Your task to perform on an android device: change the upload size in google photos Image 0: 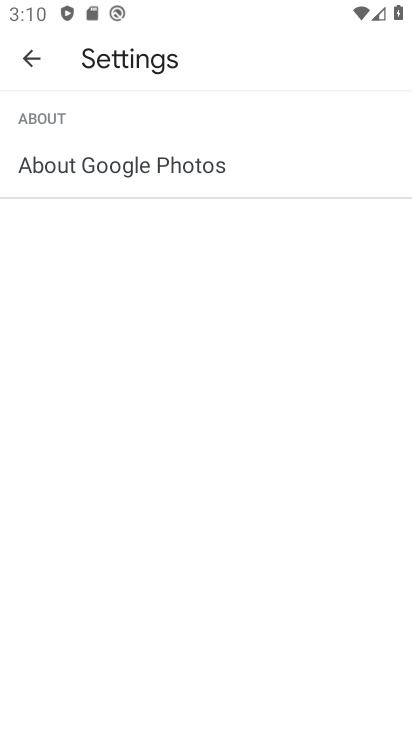
Step 0: press home button
Your task to perform on an android device: change the upload size in google photos Image 1: 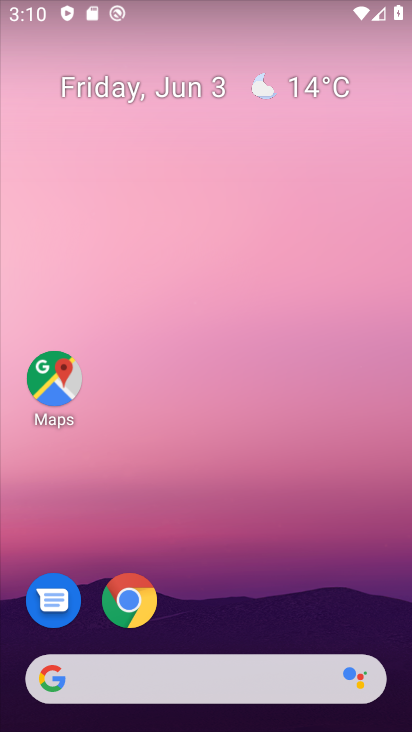
Step 1: drag from (223, 566) to (205, 169)
Your task to perform on an android device: change the upload size in google photos Image 2: 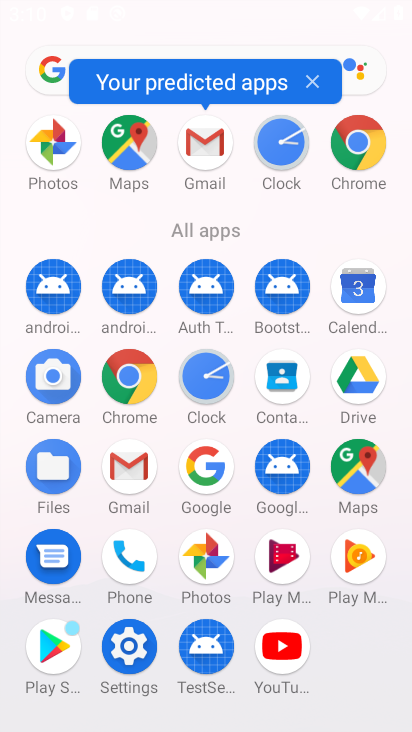
Step 2: click (68, 143)
Your task to perform on an android device: change the upload size in google photos Image 3: 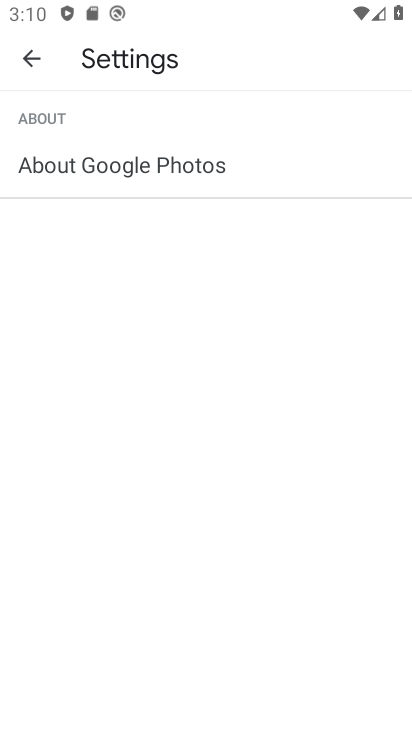
Step 3: click (41, 69)
Your task to perform on an android device: change the upload size in google photos Image 4: 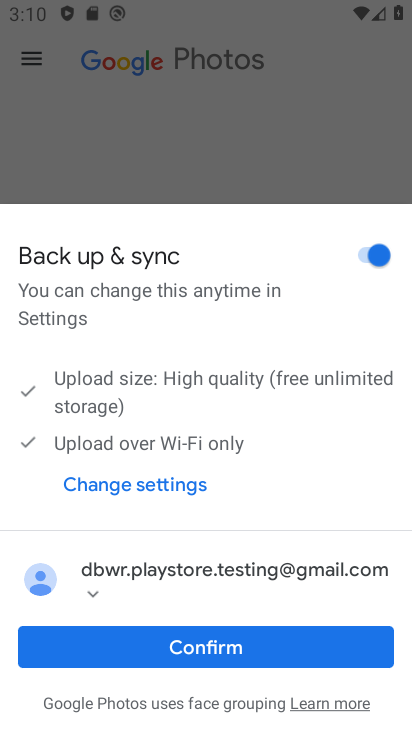
Step 4: click (219, 632)
Your task to perform on an android device: change the upload size in google photos Image 5: 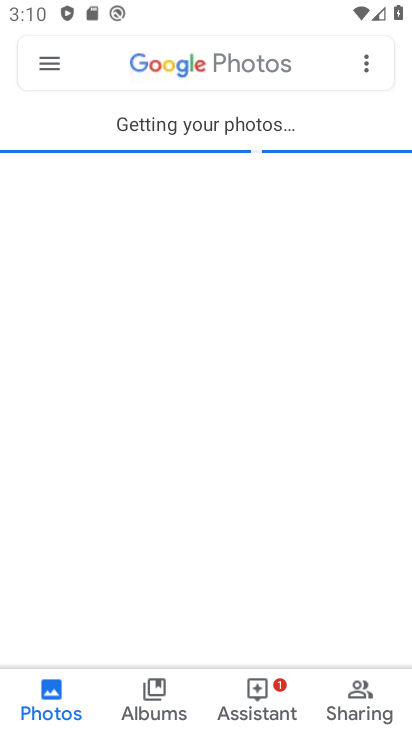
Step 5: click (54, 63)
Your task to perform on an android device: change the upload size in google photos Image 6: 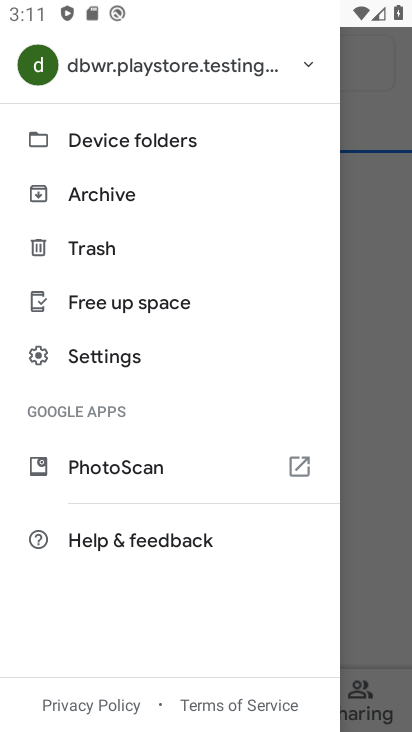
Step 6: click (97, 365)
Your task to perform on an android device: change the upload size in google photos Image 7: 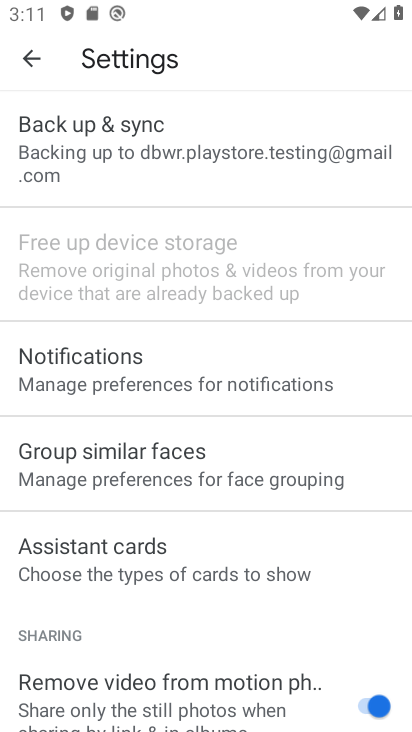
Step 7: click (188, 174)
Your task to perform on an android device: change the upload size in google photos Image 8: 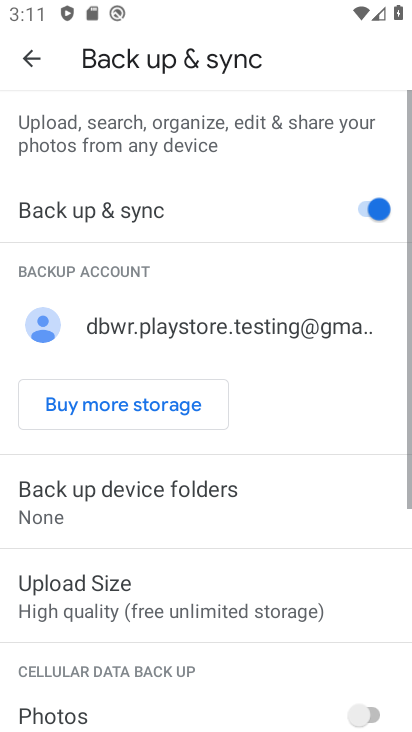
Step 8: click (149, 592)
Your task to perform on an android device: change the upload size in google photos Image 9: 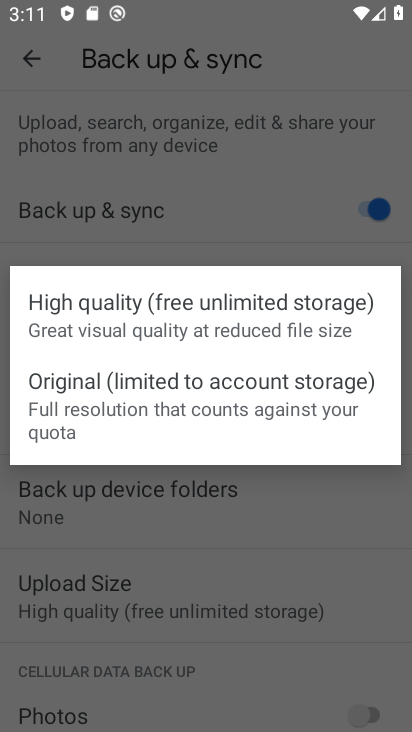
Step 9: click (234, 423)
Your task to perform on an android device: change the upload size in google photos Image 10: 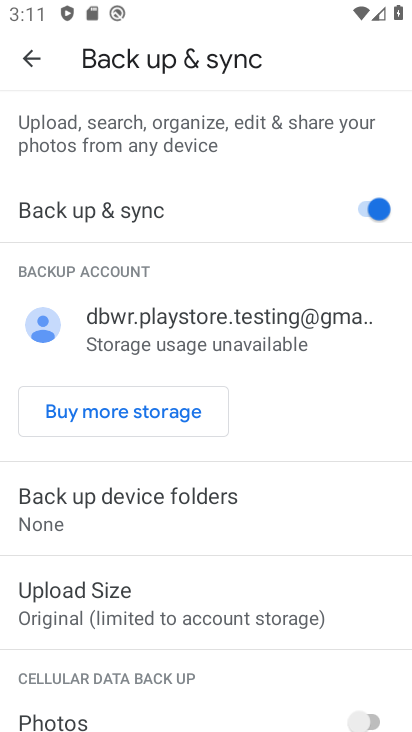
Step 10: task complete